Your task to perform on an android device: Do I have any events tomorrow? Image 0: 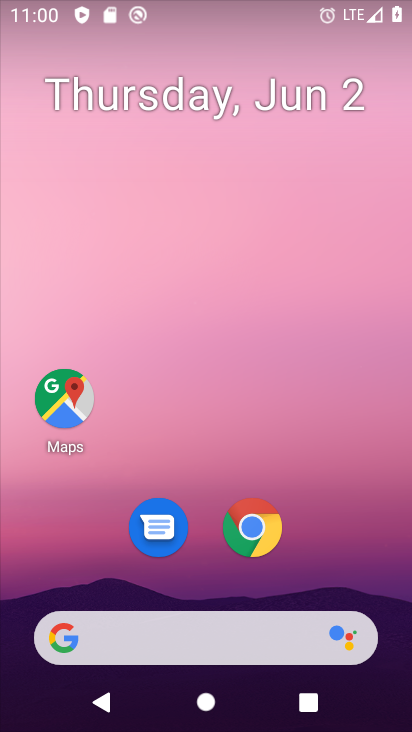
Step 0: drag from (191, 613) to (277, 99)
Your task to perform on an android device: Do I have any events tomorrow? Image 1: 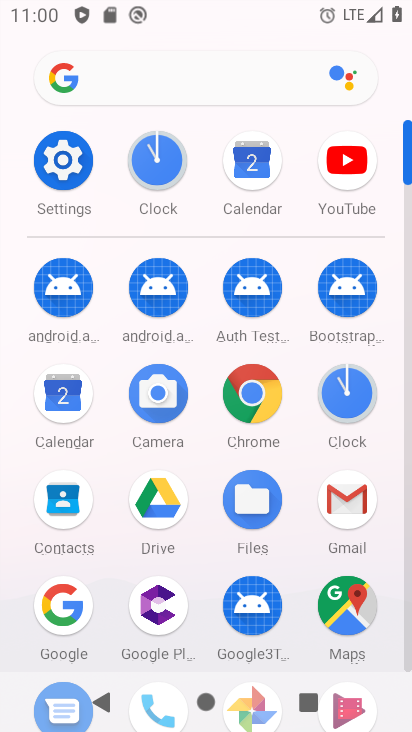
Step 1: click (63, 405)
Your task to perform on an android device: Do I have any events tomorrow? Image 2: 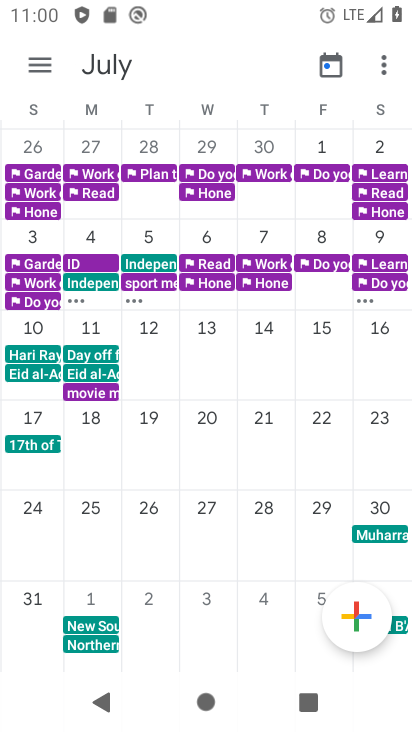
Step 2: drag from (35, 408) to (353, 406)
Your task to perform on an android device: Do I have any events tomorrow? Image 3: 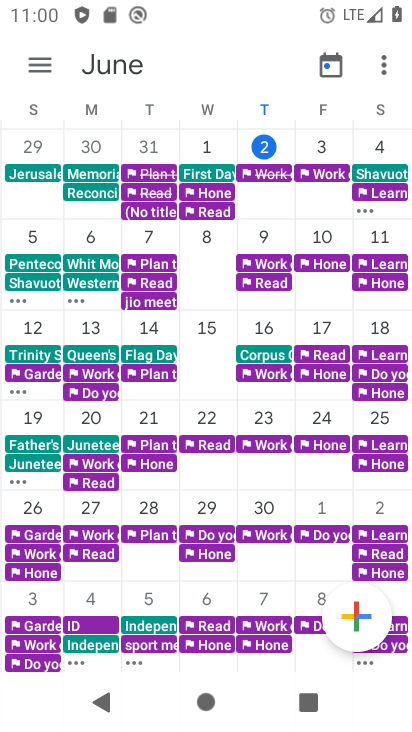
Step 3: click (41, 73)
Your task to perform on an android device: Do I have any events tomorrow? Image 4: 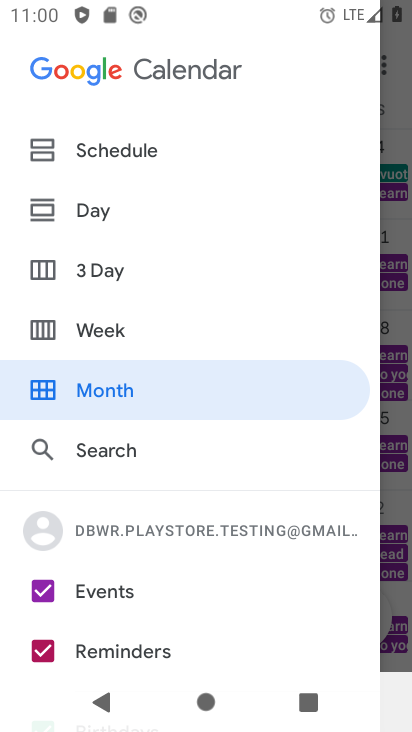
Step 4: click (68, 146)
Your task to perform on an android device: Do I have any events tomorrow? Image 5: 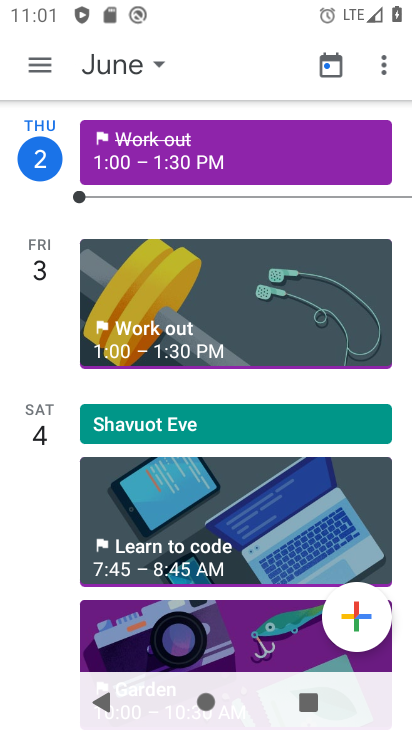
Step 5: task complete